Your task to perform on an android device: Go to eBay Image 0: 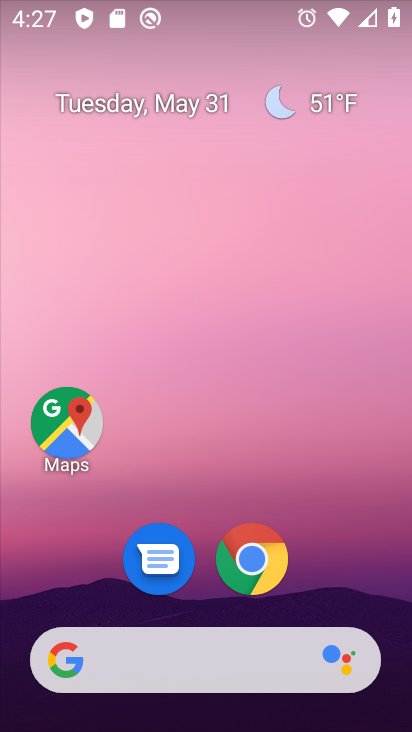
Step 0: click (245, 562)
Your task to perform on an android device: Go to eBay Image 1: 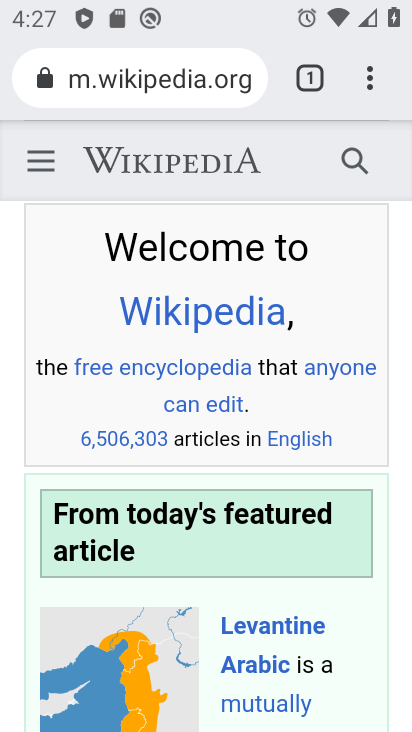
Step 1: click (150, 68)
Your task to perform on an android device: Go to eBay Image 2: 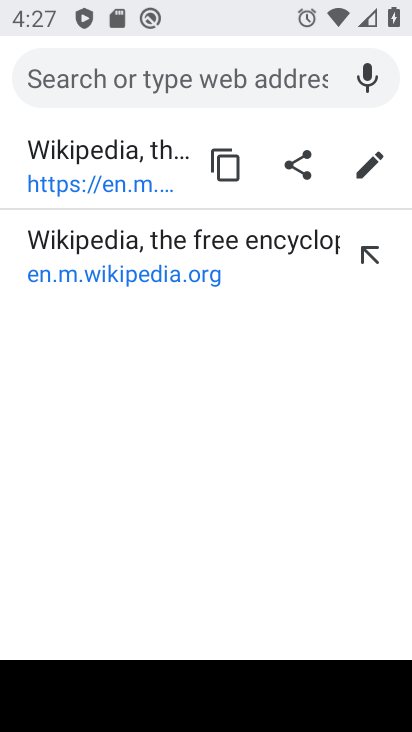
Step 2: type "ebay"
Your task to perform on an android device: Go to eBay Image 3: 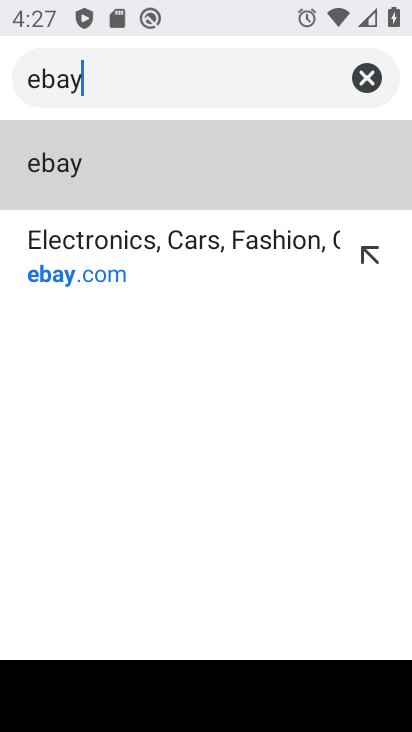
Step 3: click (56, 162)
Your task to perform on an android device: Go to eBay Image 4: 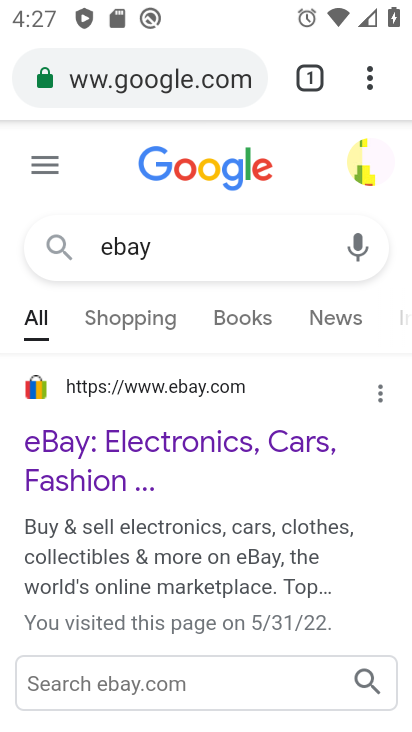
Step 4: click (141, 431)
Your task to perform on an android device: Go to eBay Image 5: 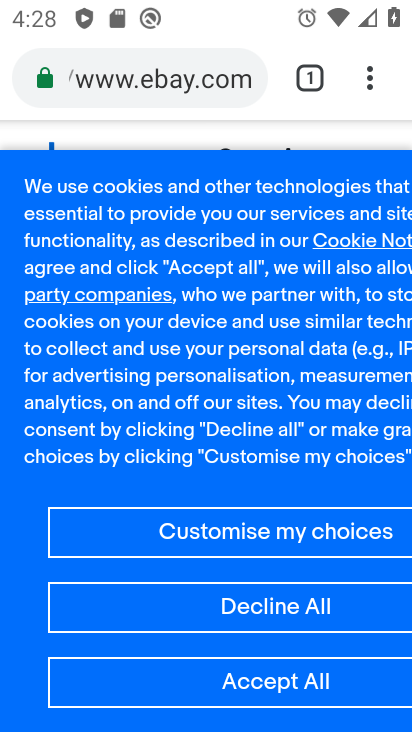
Step 5: task complete